Your task to perform on an android device: Go to Amazon Image 0: 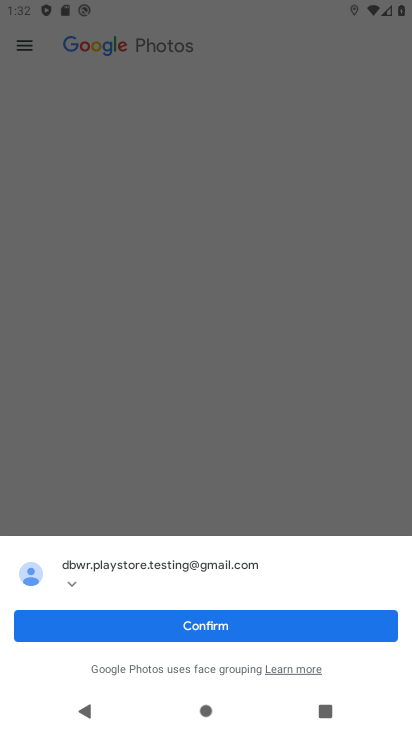
Step 0: press home button
Your task to perform on an android device: Go to Amazon Image 1: 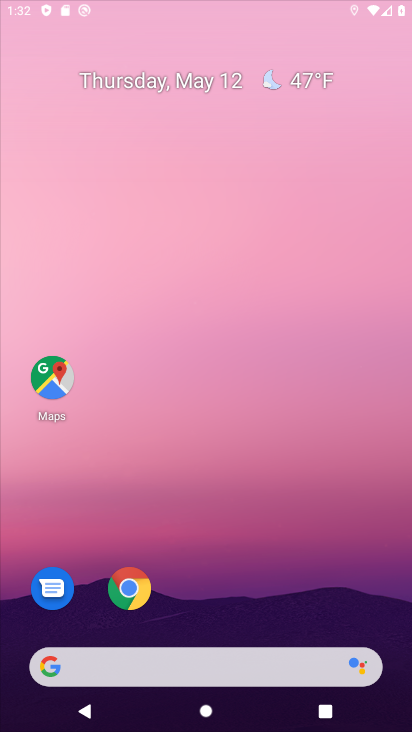
Step 1: drag from (397, 641) to (317, 54)
Your task to perform on an android device: Go to Amazon Image 2: 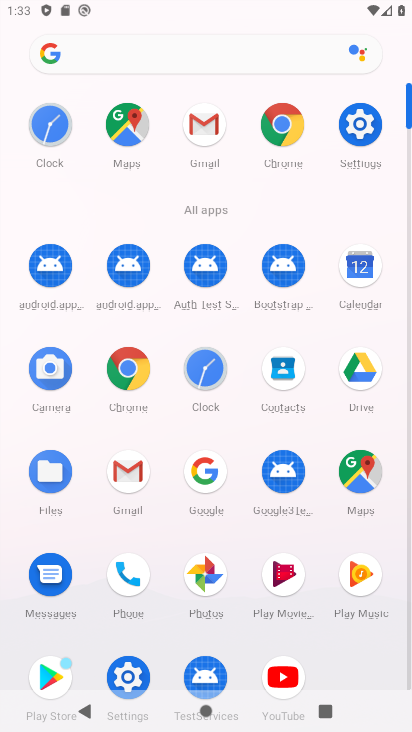
Step 2: click (136, 372)
Your task to perform on an android device: Go to Amazon Image 3: 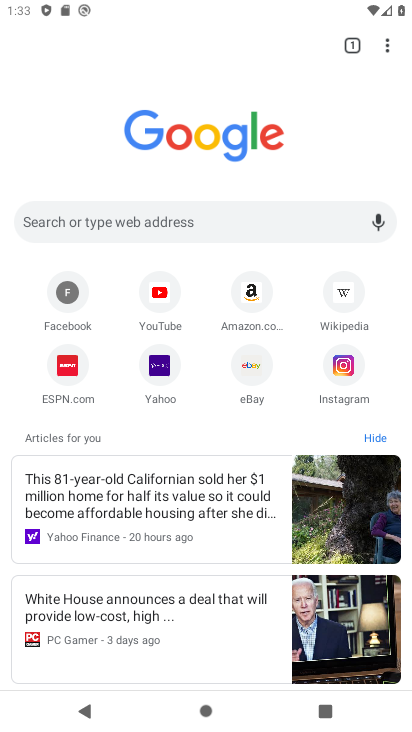
Step 3: click (249, 287)
Your task to perform on an android device: Go to Amazon Image 4: 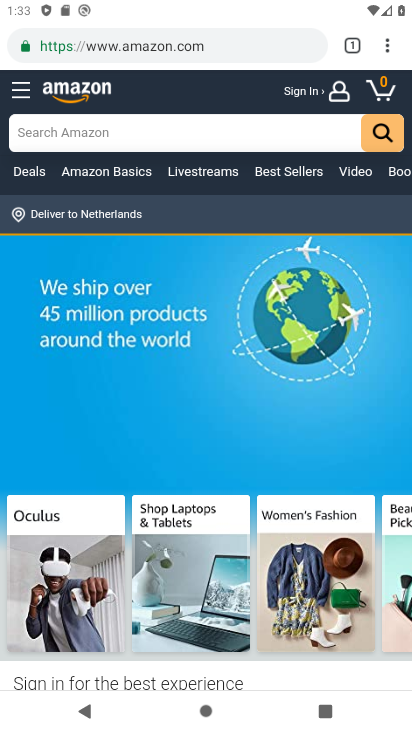
Step 4: task complete